Your task to perform on an android device: Open Chrome and go to settings Image 0: 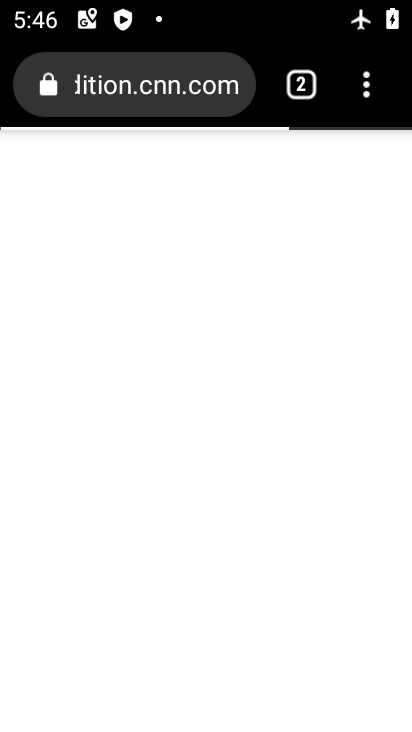
Step 0: press home button
Your task to perform on an android device: Open Chrome and go to settings Image 1: 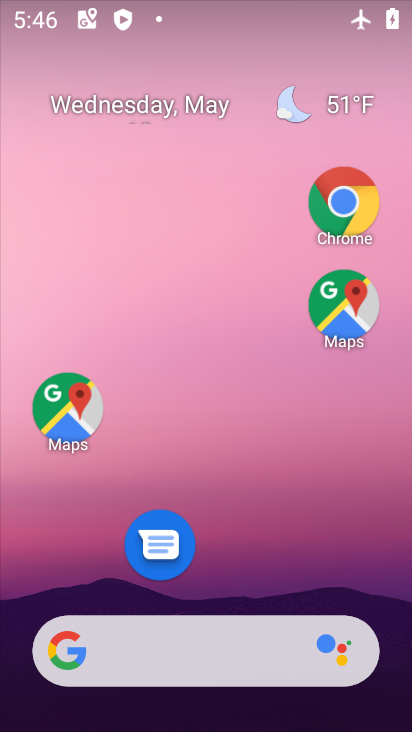
Step 1: click (349, 227)
Your task to perform on an android device: Open Chrome and go to settings Image 2: 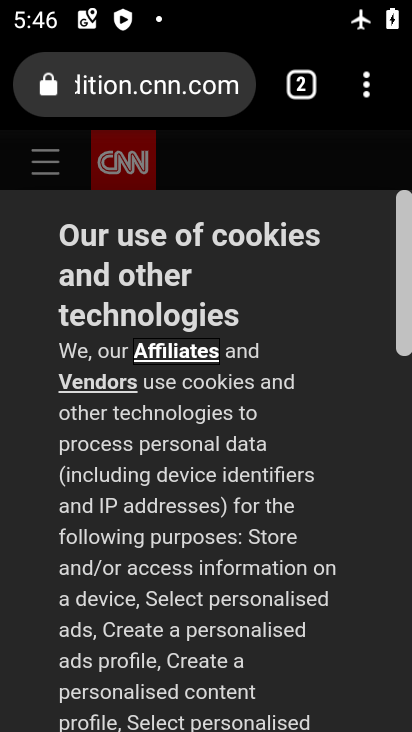
Step 2: click (359, 81)
Your task to perform on an android device: Open Chrome and go to settings Image 3: 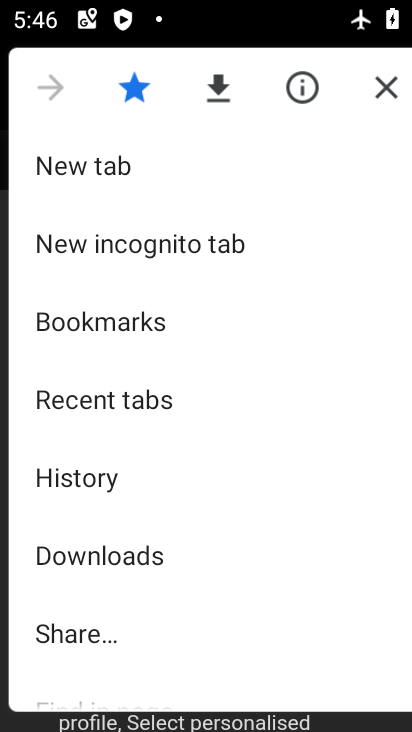
Step 3: drag from (93, 619) to (131, 200)
Your task to perform on an android device: Open Chrome and go to settings Image 4: 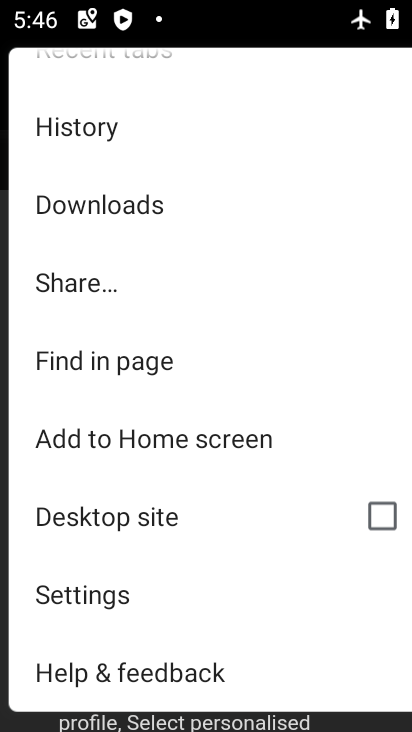
Step 4: click (79, 601)
Your task to perform on an android device: Open Chrome and go to settings Image 5: 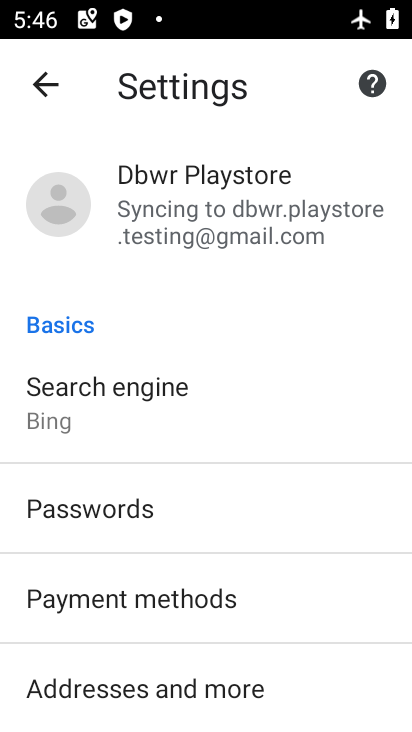
Step 5: task complete